Your task to perform on an android device: Open Google Maps and go to "Timeline" Image 0: 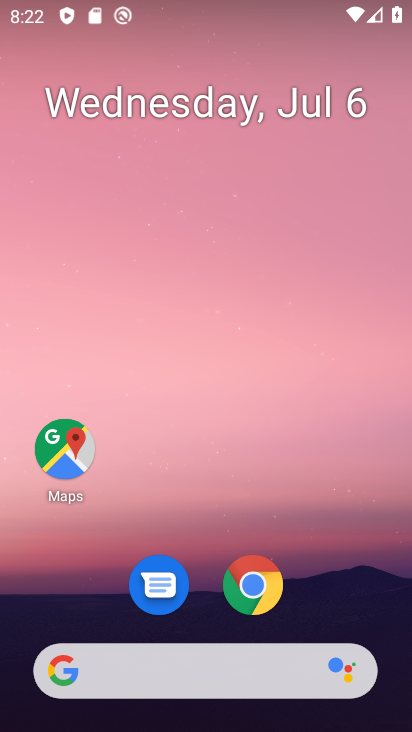
Step 0: click (53, 448)
Your task to perform on an android device: Open Google Maps and go to "Timeline" Image 1: 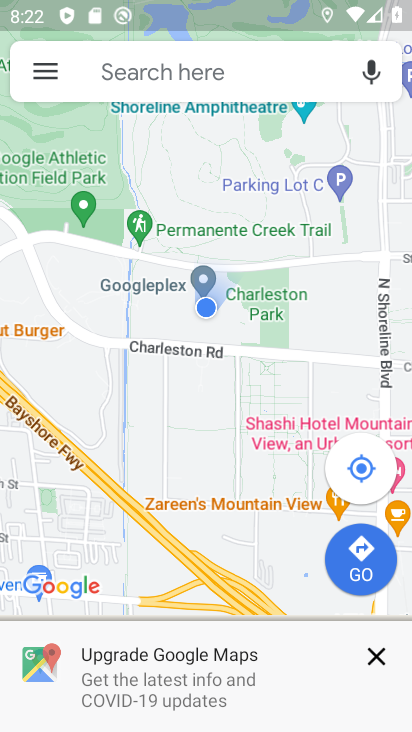
Step 1: click (50, 66)
Your task to perform on an android device: Open Google Maps and go to "Timeline" Image 2: 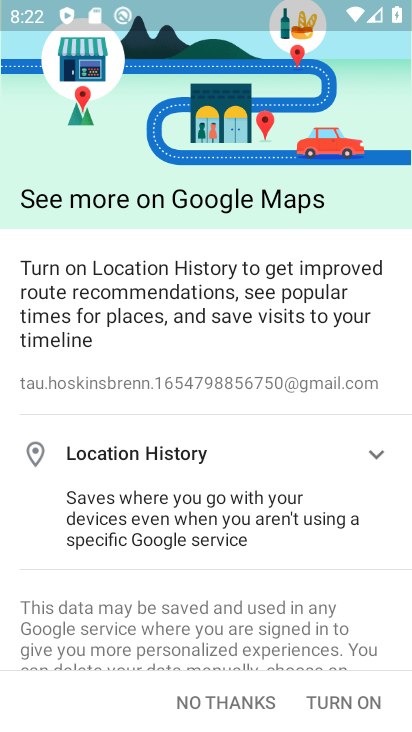
Step 2: click (358, 702)
Your task to perform on an android device: Open Google Maps and go to "Timeline" Image 3: 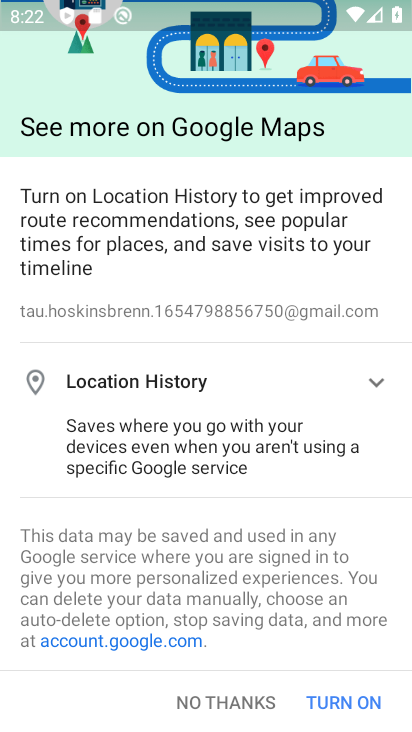
Step 3: drag from (193, 549) to (239, 176)
Your task to perform on an android device: Open Google Maps and go to "Timeline" Image 4: 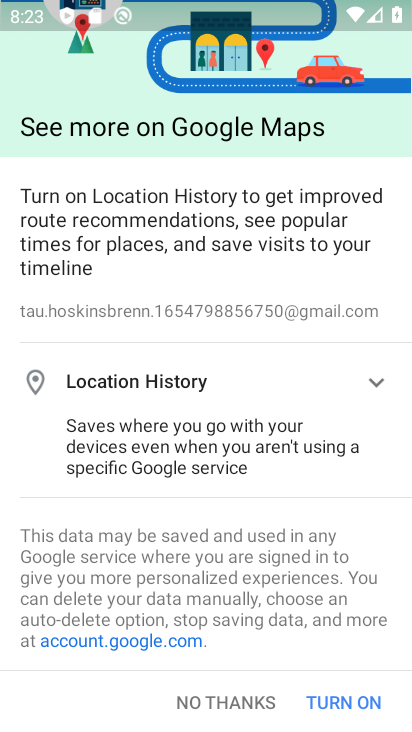
Step 4: drag from (208, 587) to (250, 190)
Your task to perform on an android device: Open Google Maps and go to "Timeline" Image 5: 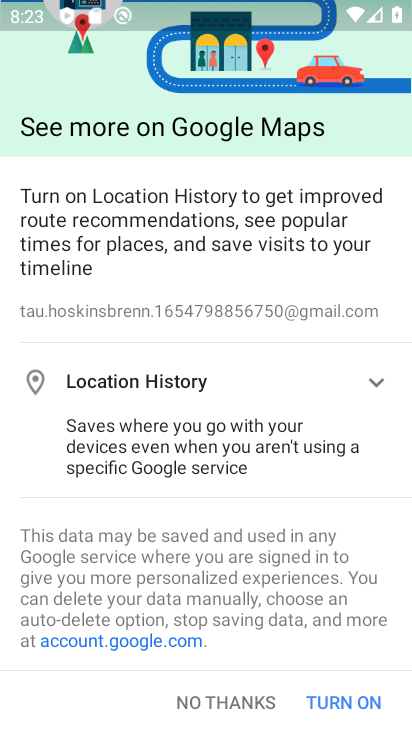
Step 5: drag from (202, 230) to (229, 571)
Your task to perform on an android device: Open Google Maps and go to "Timeline" Image 6: 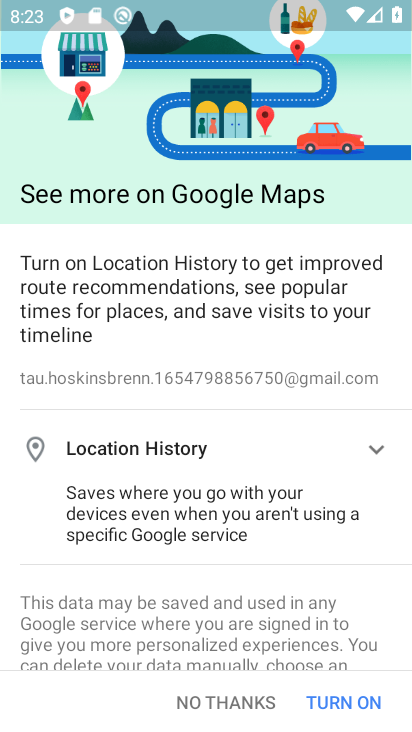
Step 6: drag from (144, 609) to (199, 151)
Your task to perform on an android device: Open Google Maps and go to "Timeline" Image 7: 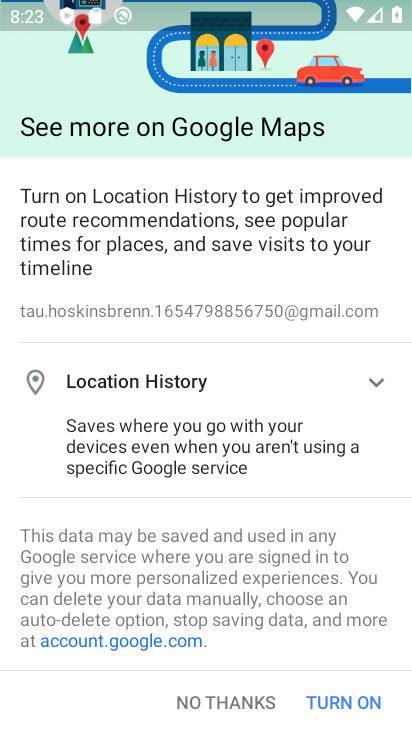
Step 7: press back button
Your task to perform on an android device: Open Google Maps and go to "Timeline" Image 8: 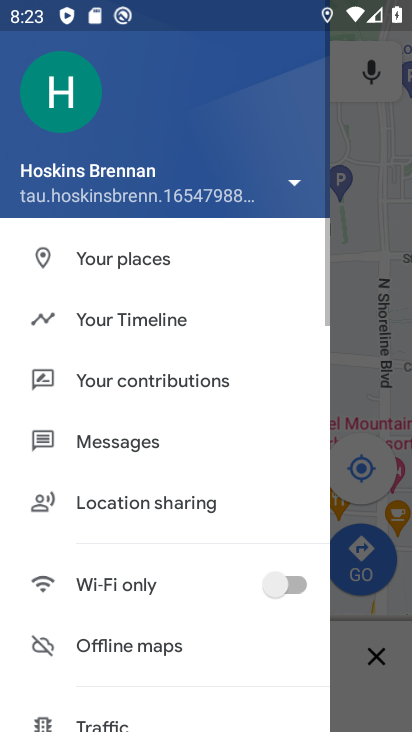
Step 8: click (159, 313)
Your task to perform on an android device: Open Google Maps and go to "Timeline" Image 9: 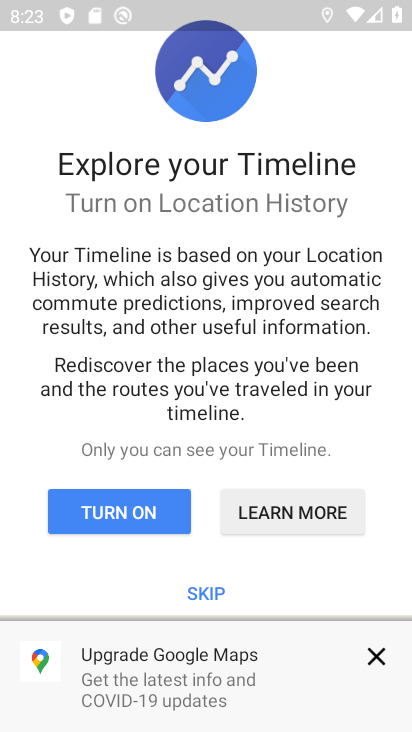
Step 9: click (170, 508)
Your task to perform on an android device: Open Google Maps and go to "Timeline" Image 10: 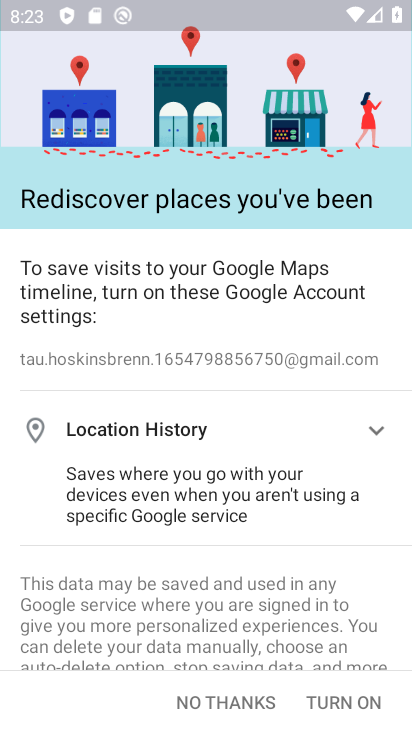
Step 10: click (219, 702)
Your task to perform on an android device: Open Google Maps and go to "Timeline" Image 11: 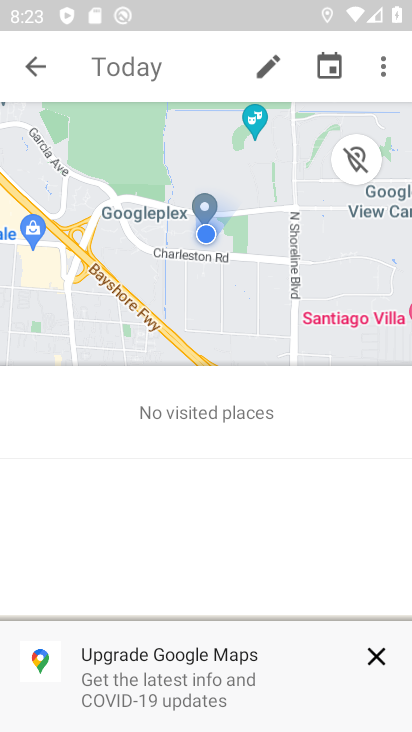
Step 11: task complete